Your task to perform on an android device: Search for Mexican restaurants on Maps Image 0: 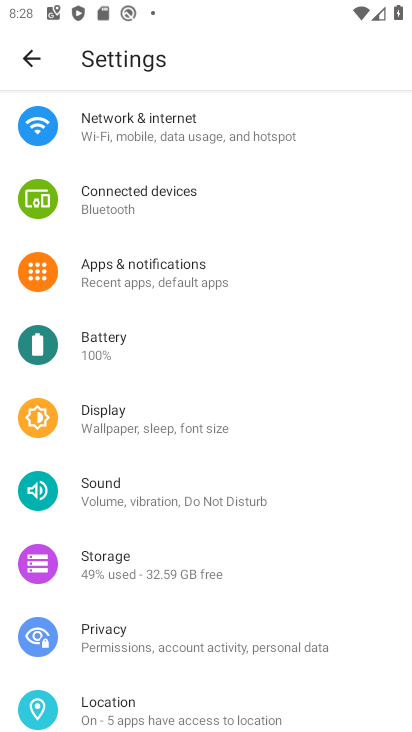
Step 0: press home button
Your task to perform on an android device: Search for Mexican restaurants on Maps Image 1: 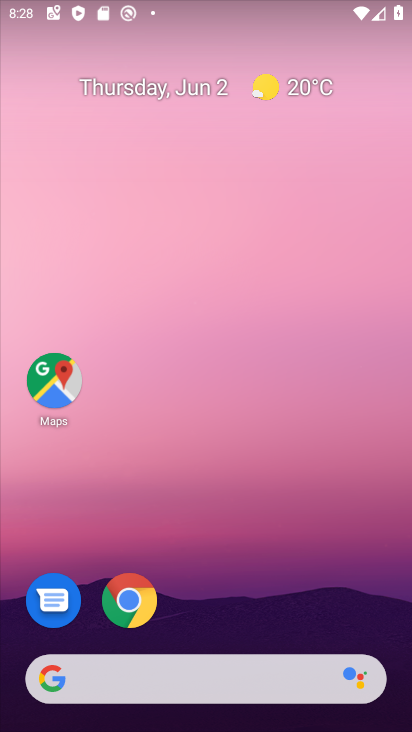
Step 1: drag from (334, 619) to (359, 312)
Your task to perform on an android device: Search for Mexican restaurants on Maps Image 2: 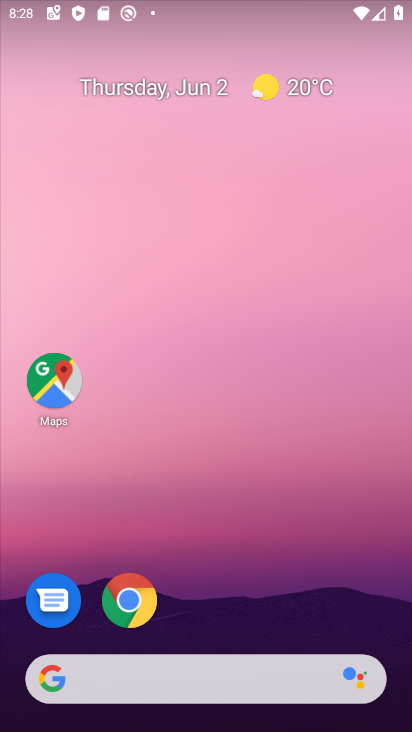
Step 2: drag from (332, 622) to (350, 237)
Your task to perform on an android device: Search for Mexican restaurants on Maps Image 3: 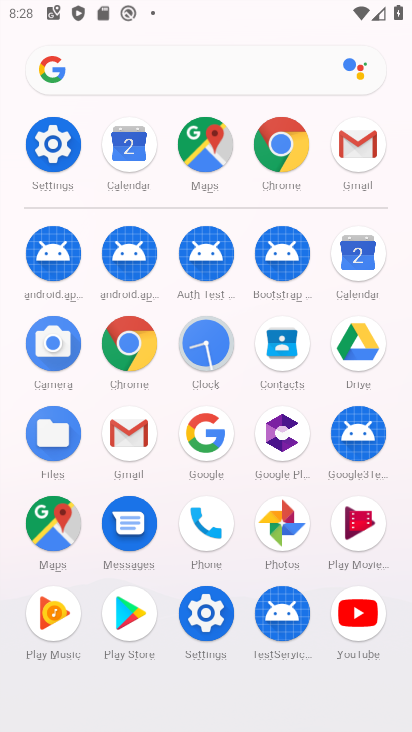
Step 3: click (56, 533)
Your task to perform on an android device: Search for Mexican restaurants on Maps Image 4: 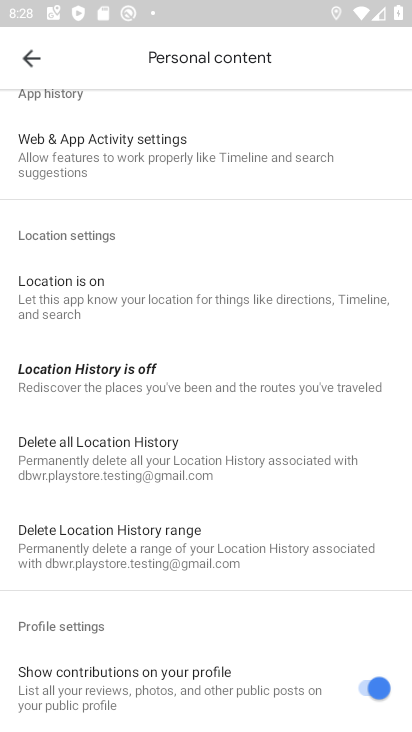
Step 4: press back button
Your task to perform on an android device: Search for Mexican restaurants on Maps Image 5: 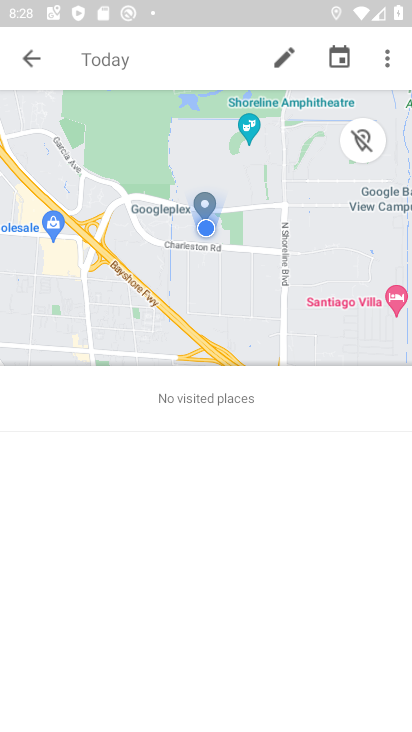
Step 5: press back button
Your task to perform on an android device: Search for Mexican restaurants on Maps Image 6: 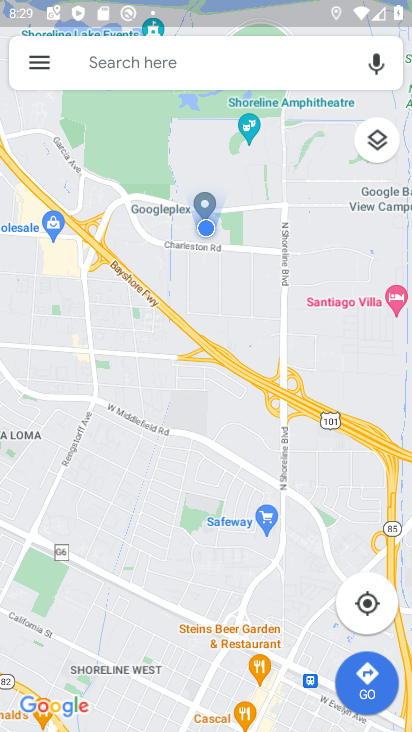
Step 6: click (189, 67)
Your task to perform on an android device: Search for Mexican restaurants on Maps Image 7: 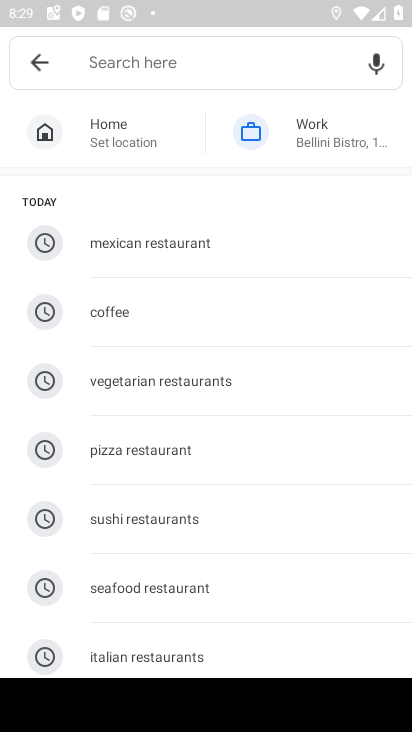
Step 7: type "mexcian restaurants"
Your task to perform on an android device: Search for Mexican restaurants on Maps Image 8: 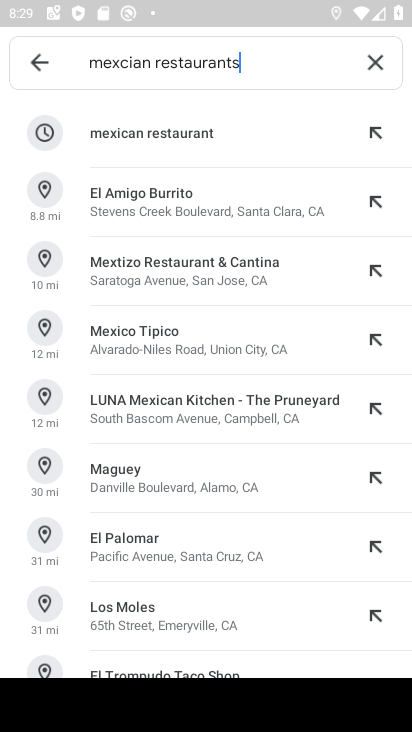
Step 8: click (241, 141)
Your task to perform on an android device: Search for Mexican restaurants on Maps Image 9: 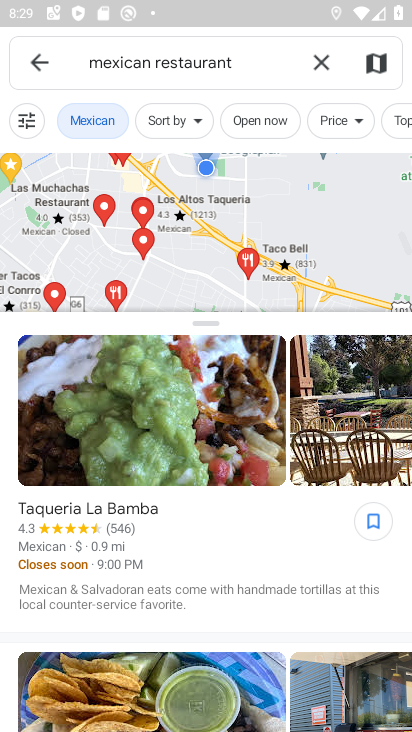
Step 9: task complete